Your task to perform on an android device: Go to Google maps Image 0: 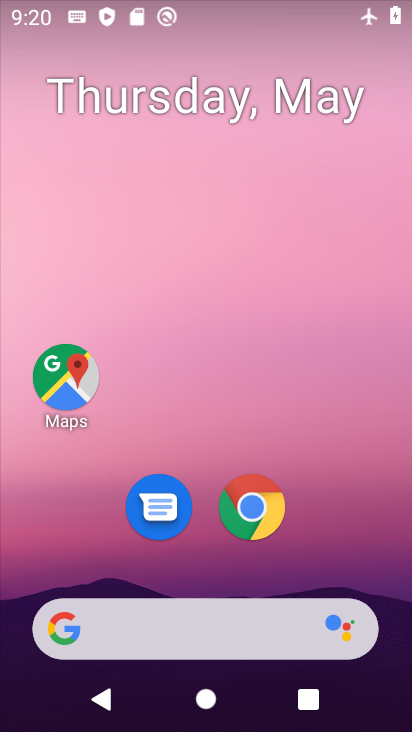
Step 0: drag from (266, 618) to (287, 225)
Your task to perform on an android device: Go to Google maps Image 1: 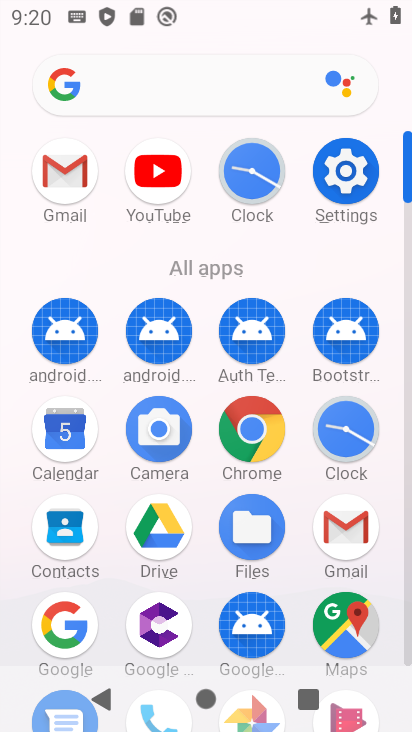
Step 1: click (363, 620)
Your task to perform on an android device: Go to Google maps Image 2: 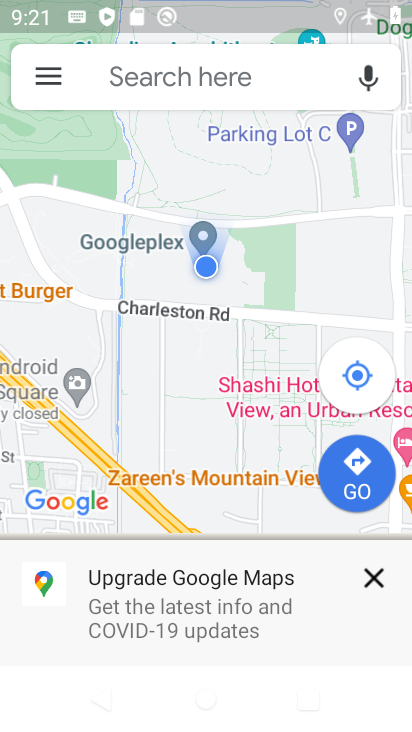
Step 2: task complete